Your task to perform on an android device: Open the stopwatch Image 0: 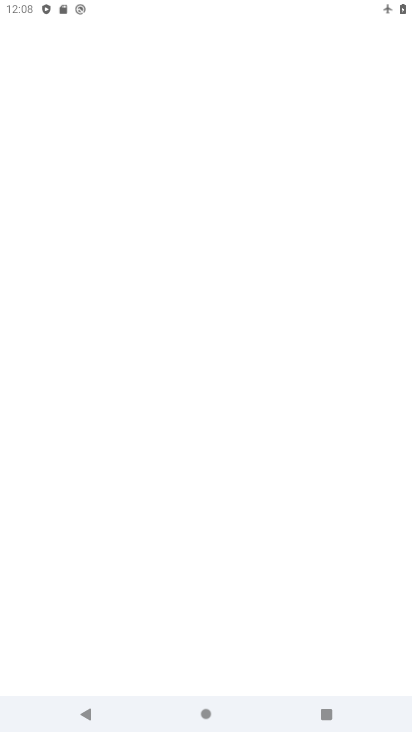
Step 0: drag from (254, 623) to (257, 191)
Your task to perform on an android device: Open the stopwatch Image 1: 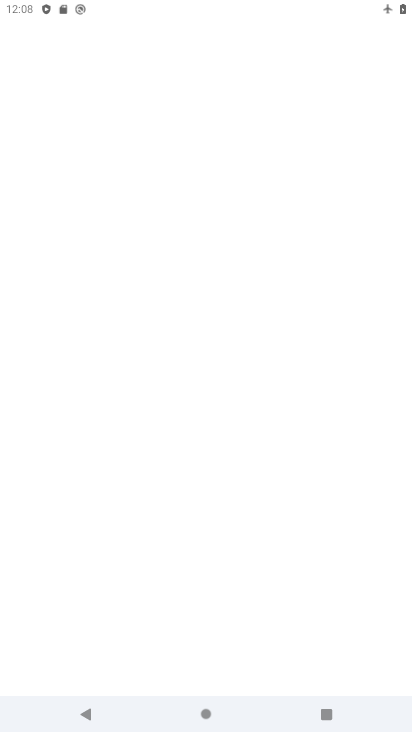
Step 1: press home button
Your task to perform on an android device: Open the stopwatch Image 2: 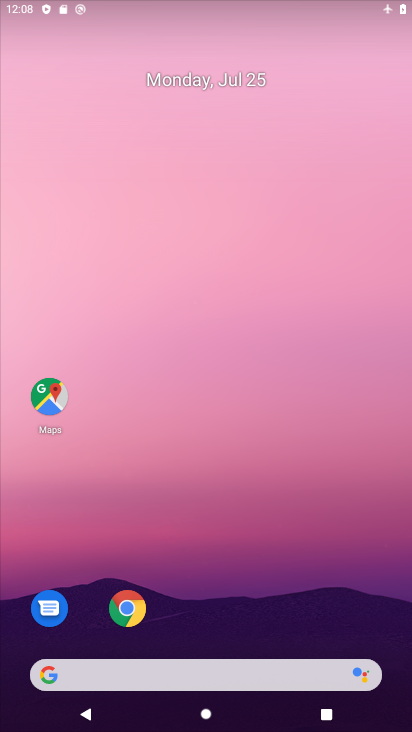
Step 2: drag from (240, 587) to (242, 127)
Your task to perform on an android device: Open the stopwatch Image 3: 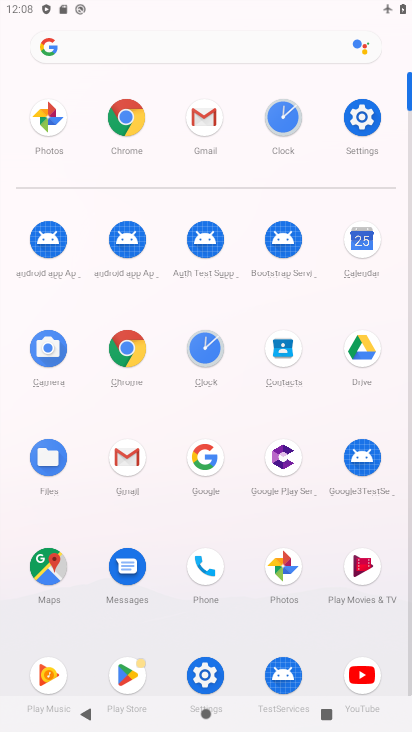
Step 3: click (210, 357)
Your task to perform on an android device: Open the stopwatch Image 4: 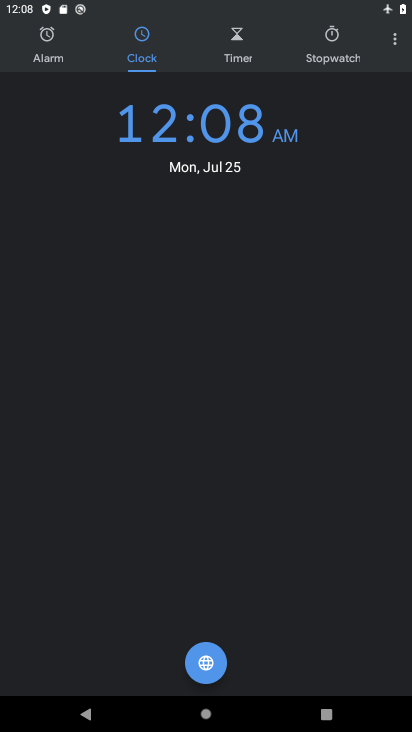
Step 4: click (333, 62)
Your task to perform on an android device: Open the stopwatch Image 5: 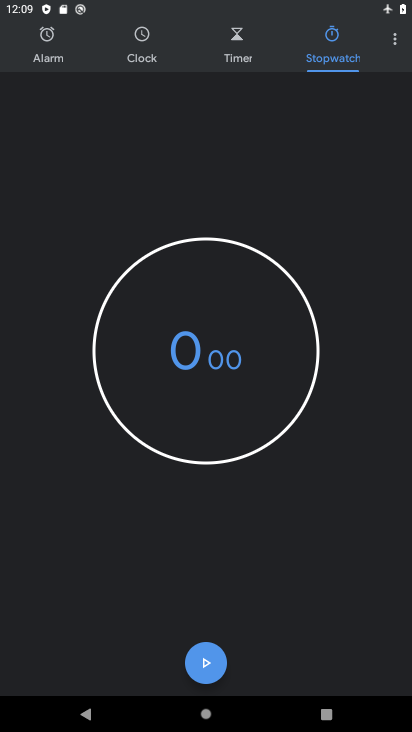
Step 5: task complete